Your task to perform on an android device: remove spam from my inbox in the gmail app Image 0: 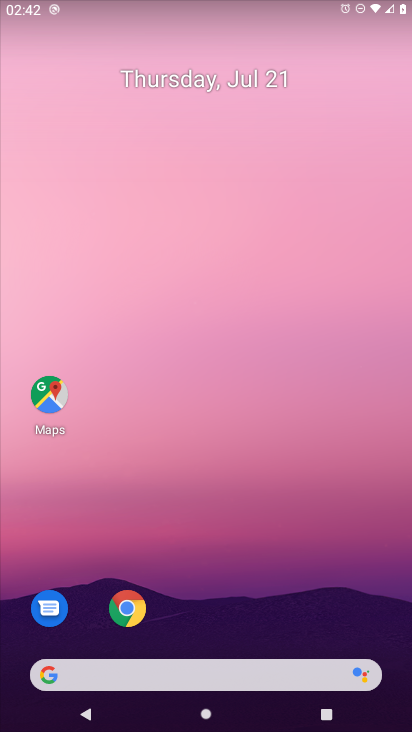
Step 0: press home button
Your task to perform on an android device: remove spam from my inbox in the gmail app Image 1: 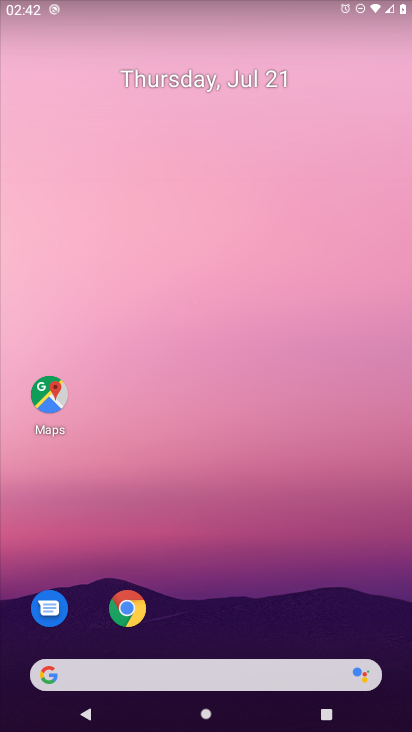
Step 1: press home button
Your task to perform on an android device: remove spam from my inbox in the gmail app Image 2: 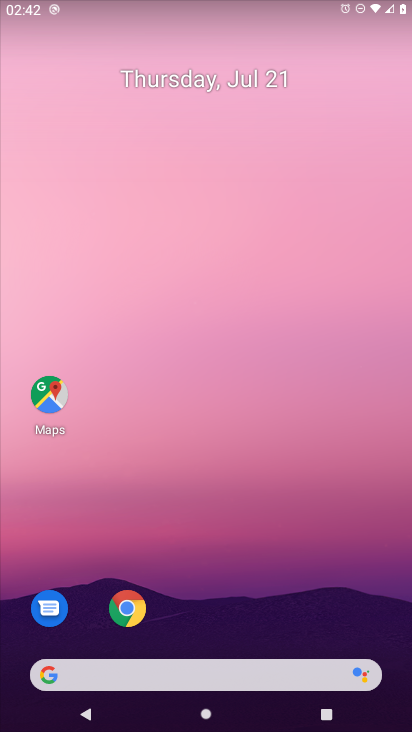
Step 2: drag from (227, 635) to (135, 3)
Your task to perform on an android device: remove spam from my inbox in the gmail app Image 3: 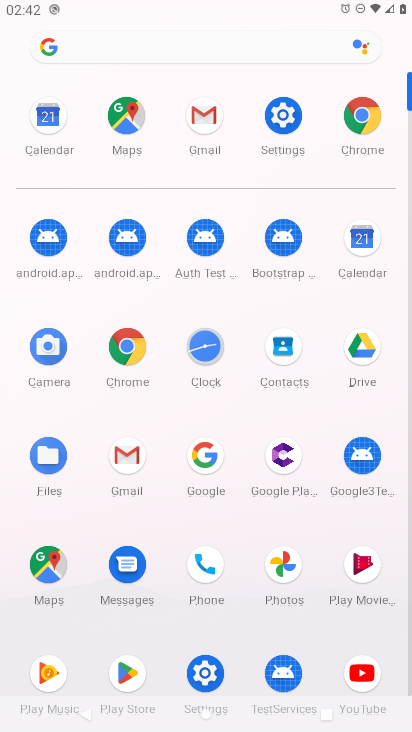
Step 3: click (208, 110)
Your task to perform on an android device: remove spam from my inbox in the gmail app Image 4: 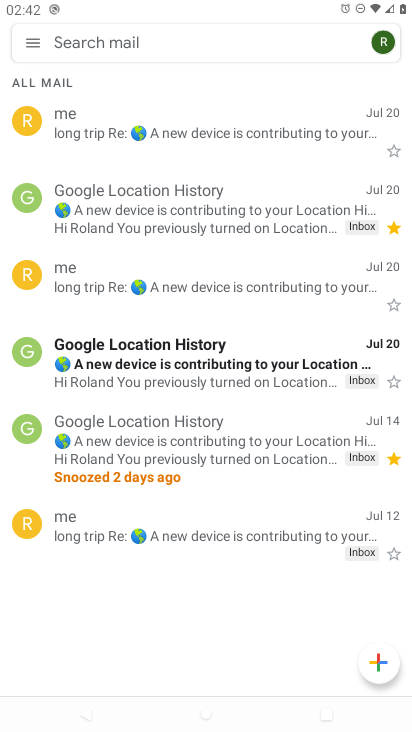
Step 4: click (31, 49)
Your task to perform on an android device: remove spam from my inbox in the gmail app Image 5: 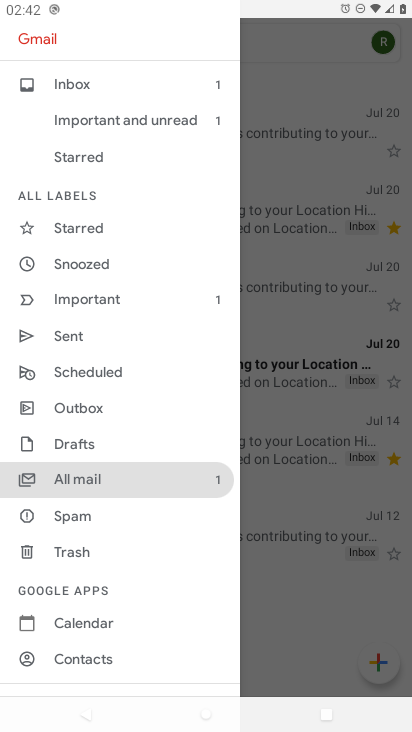
Step 5: click (78, 517)
Your task to perform on an android device: remove spam from my inbox in the gmail app Image 6: 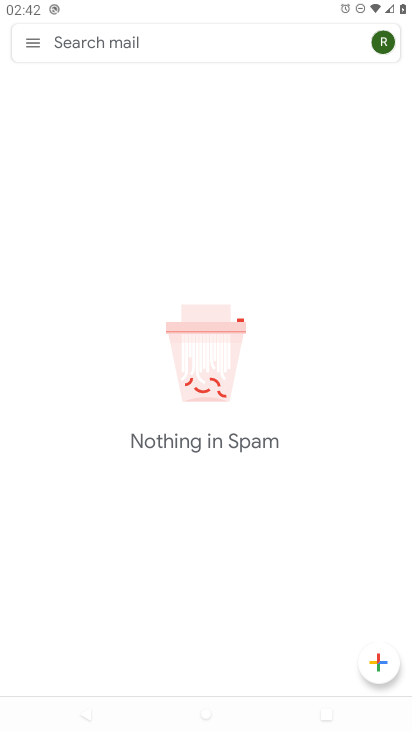
Step 6: task complete